Your task to perform on an android device: toggle wifi Image 0: 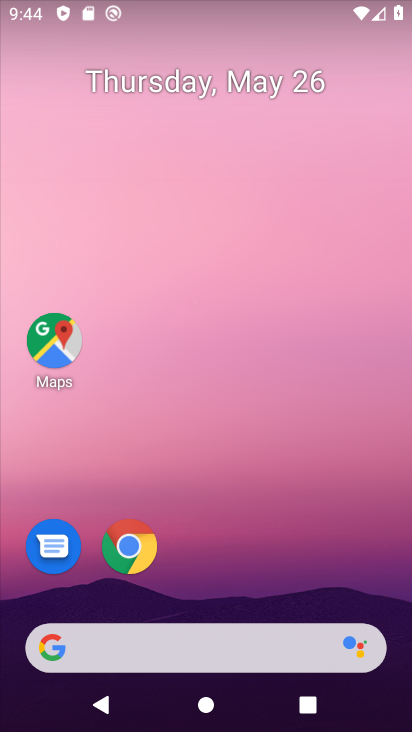
Step 0: drag from (196, 4) to (225, 301)
Your task to perform on an android device: toggle wifi Image 1: 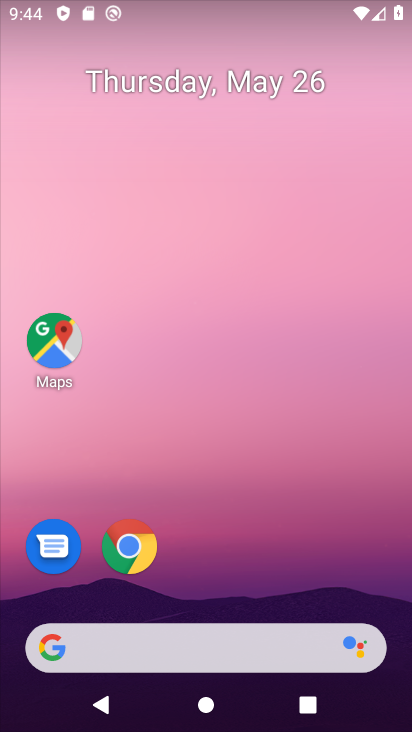
Step 1: drag from (222, 0) to (252, 477)
Your task to perform on an android device: toggle wifi Image 2: 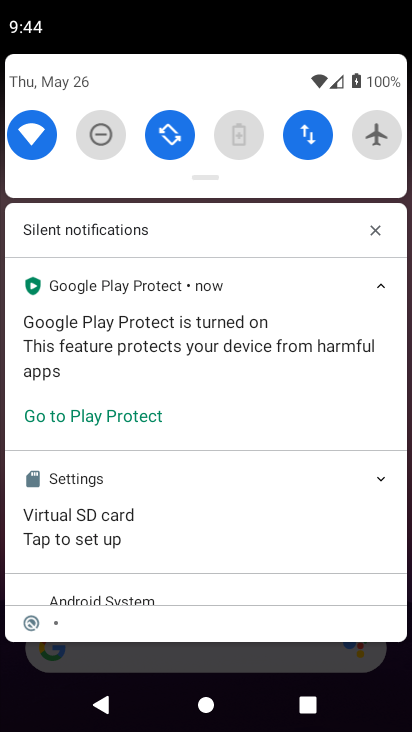
Step 2: click (23, 127)
Your task to perform on an android device: toggle wifi Image 3: 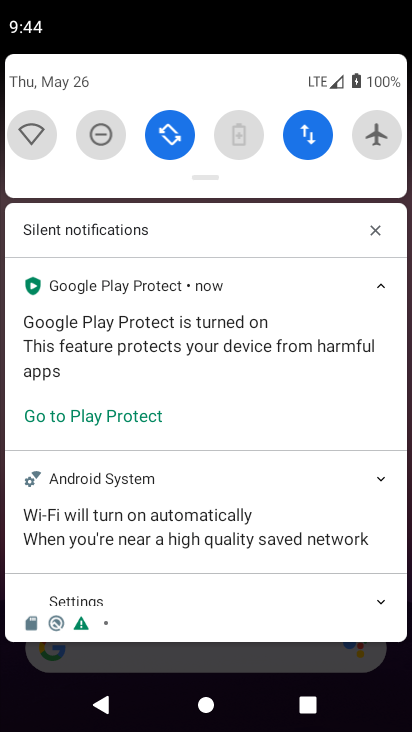
Step 3: task complete